Your task to perform on an android device: turn notification dots off Image 0: 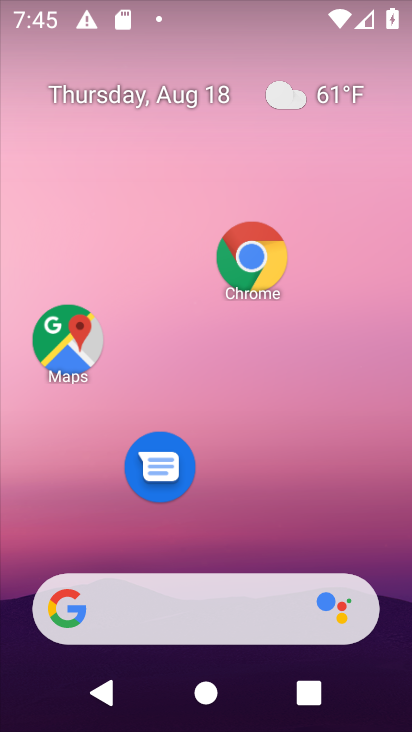
Step 0: drag from (301, 525) to (337, 98)
Your task to perform on an android device: turn notification dots off Image 1: 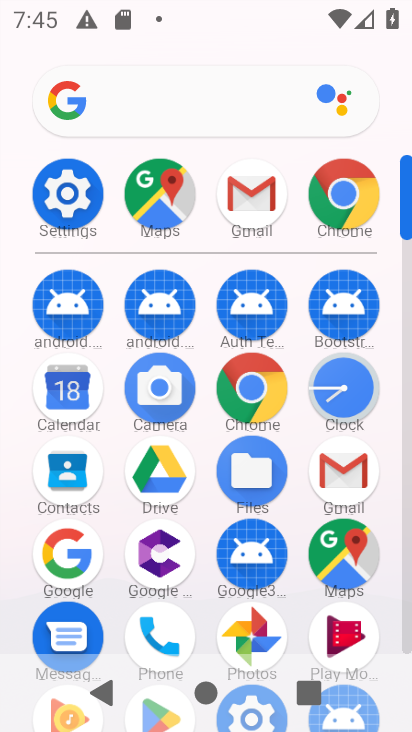
Step 1: click (341, 204)
Your task to perform on an android device: turn notification dots off Image 2: 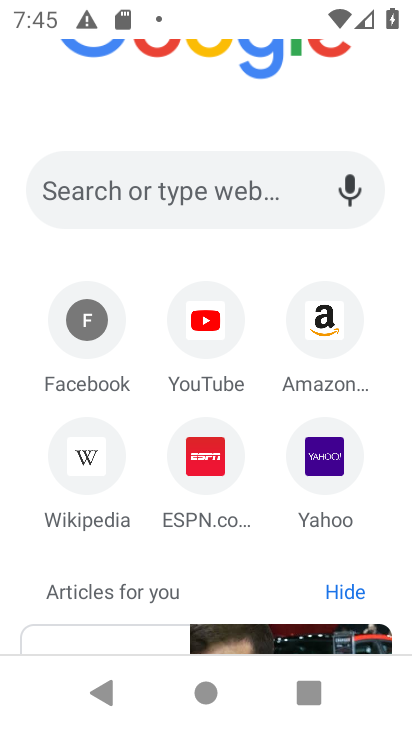
Step 2: task complete